Your task to perform on an android device: When is my next appointment? Image 0: 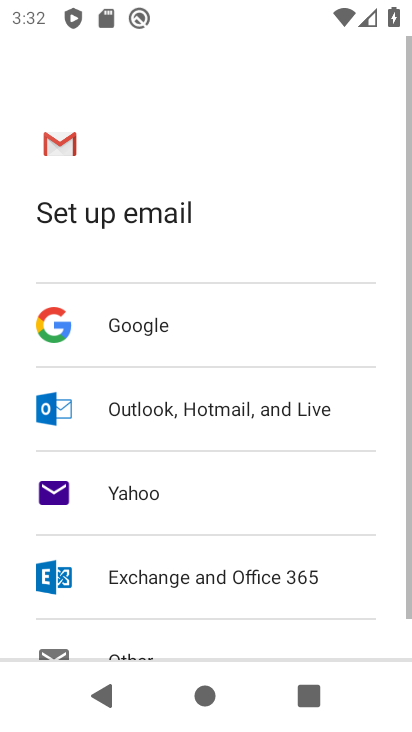
Step 0: press back button
Your task to perform on an android device: When is my next appointment? Image 1: 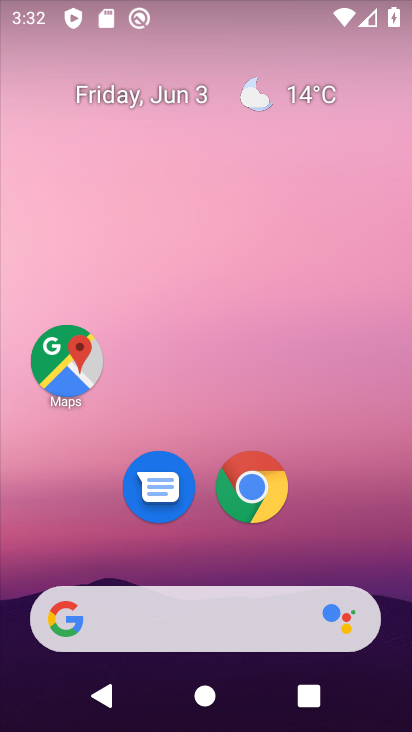
Step 1: drag from (204, 573) to (308, 65)
Your task to perform on an android device: When is my next appointment? Image 2: 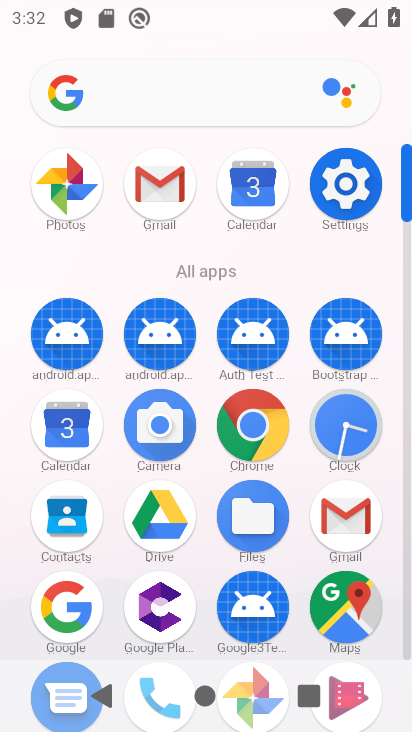
Step 2: click (257, 172)
Your task to perform on an android device: When is my next appointment? Image 3: 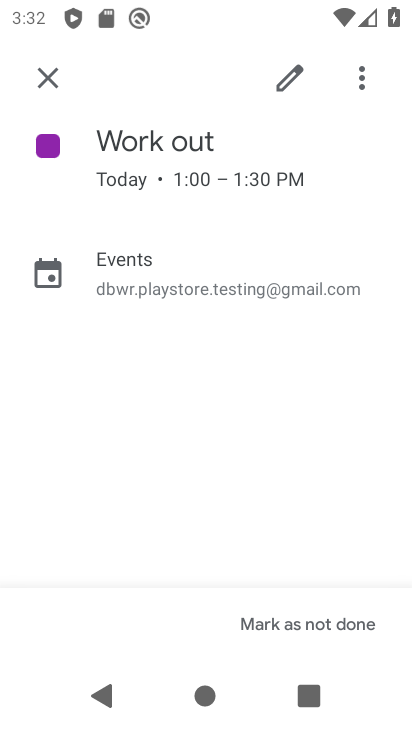
Step 3: click (38, 69)
Your task to perform on an android device: When is my next appointment? Image 4: 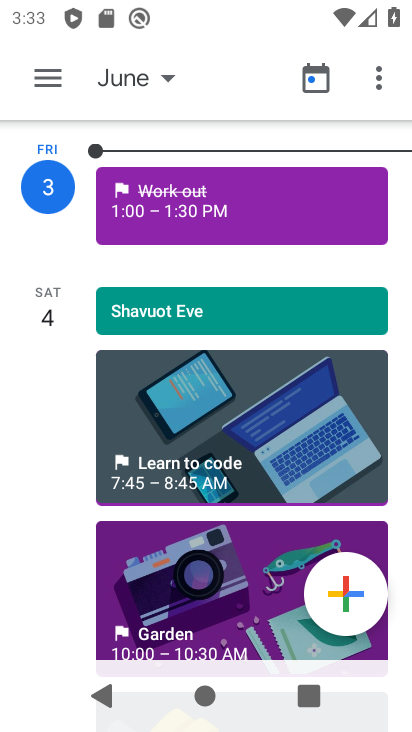
Step 4: drag from (221, 628) to (326, 143)
Your task to perform on an android device: When is my next appointment? Image 5: 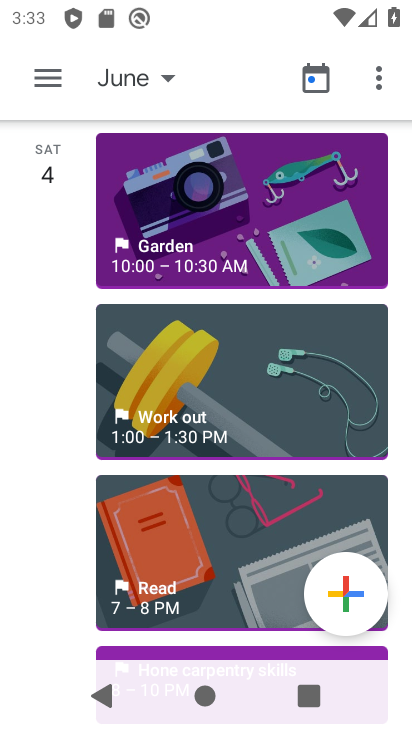
Step 5: drag from (206, 627) to (283, 182)
Your task to perform on an android device: When is my next appointment? Image 6: 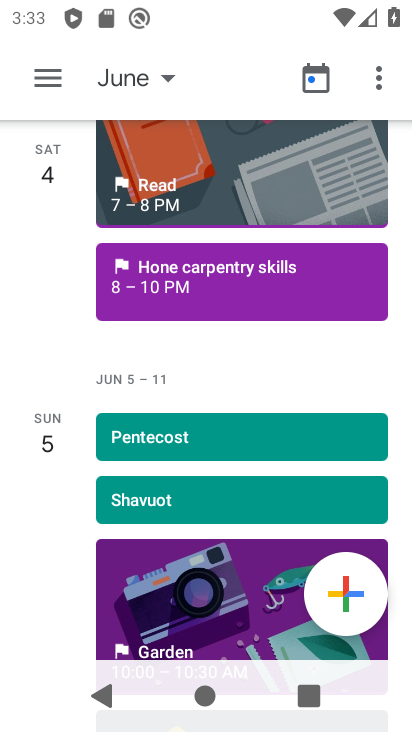
Step 6: drag from (184, 643) to (312, 90)
Your task to perform on an android device: When is my next appointment? Image 7: 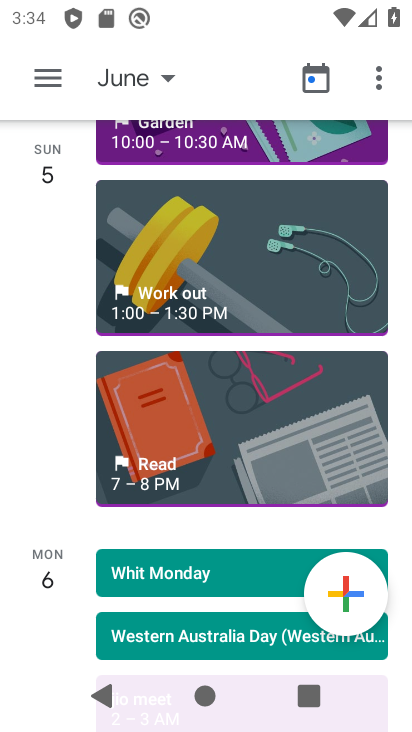
Step 7: drag from (151, 635) to (251, 183)
Your task to perform on an android device: When is my next appointment? Image 8: 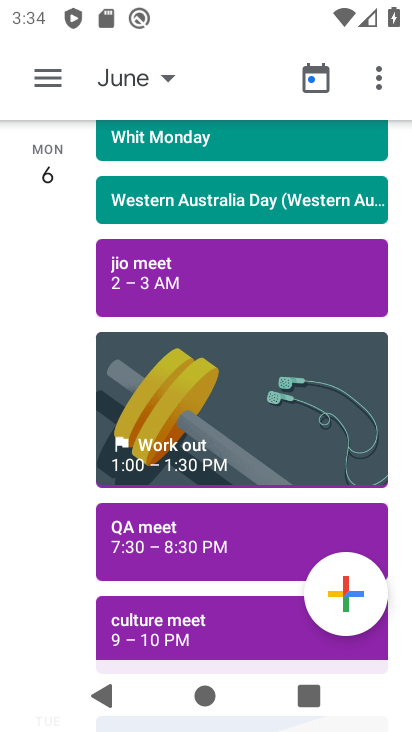
Step 8: click (202, 530)
Your task to perform on an android device: When is my next appointment? Image 9: 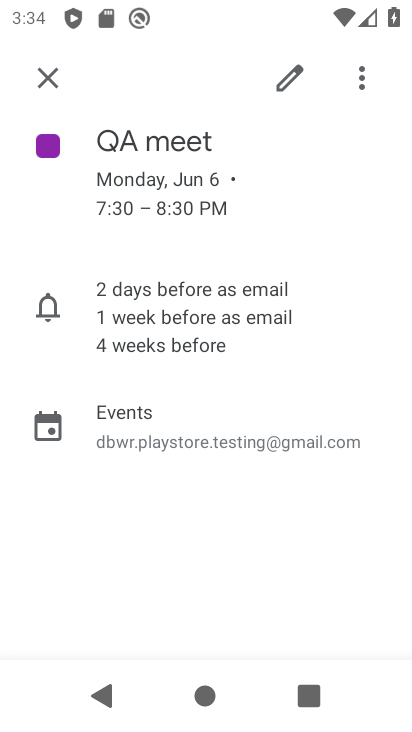
Step 9: task complete